Your task to perform on an android device: Open Chrome and go to settings Image 0: 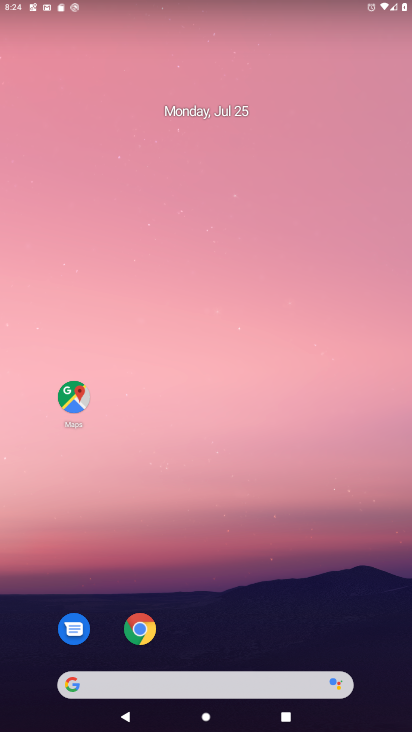
Step 0: click (142, 630)
Your task to perform on an android device: Open Chrome and go to settings Image 1: 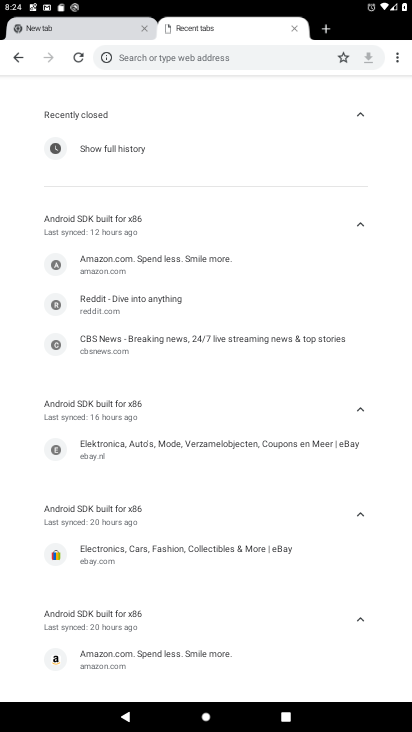
Step 1: click (396, 55)
Your task to perform on an android device: Open Chrome and go to settings Image 2: 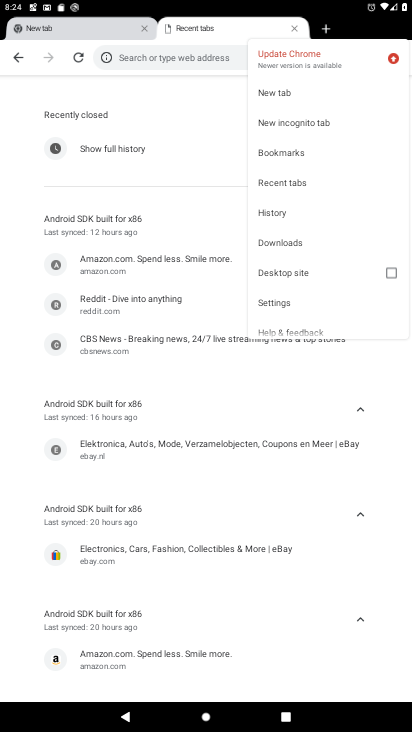
Step 2: click (268, 299)
Your task to perform on an android device: Open Chrome and go to settings Image 3: 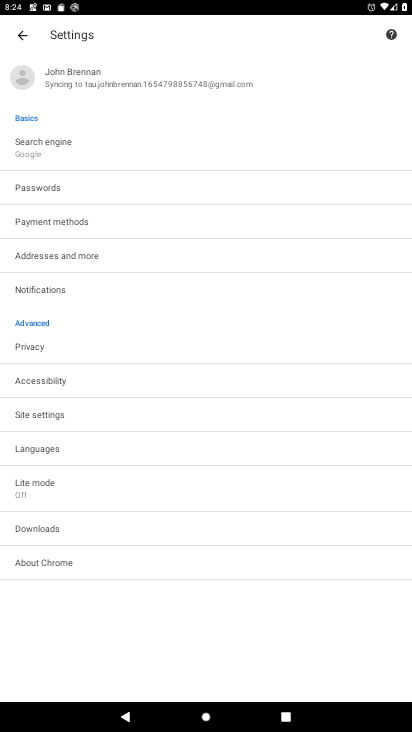
Step 3: task complete